Your task to perform on an android device: delete a single message in the gmail app Image 0: 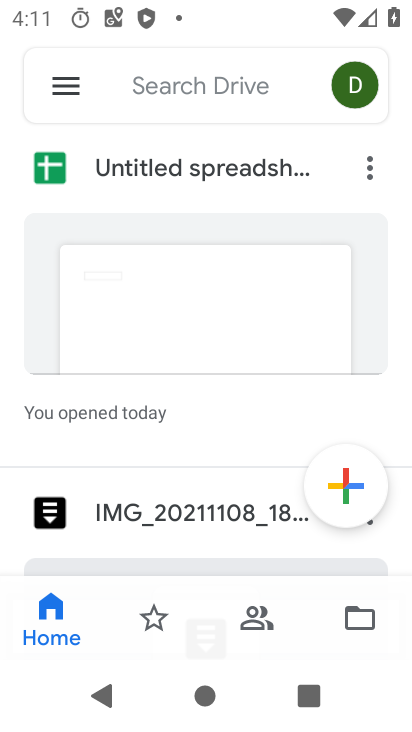
Step 0: press home button
Your task to perform on an android device: delete a single message in the gmail app Image 1: 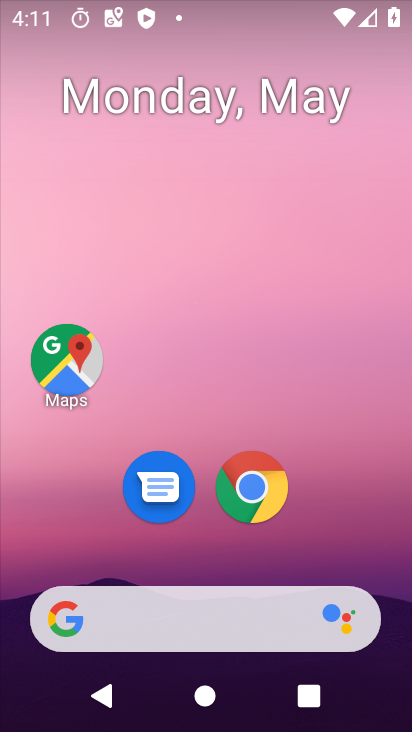
Step 1: drag from (171, 538) to (188, 230)
Your task to perform on an android device: delete a single message in the gmail app Image 2: 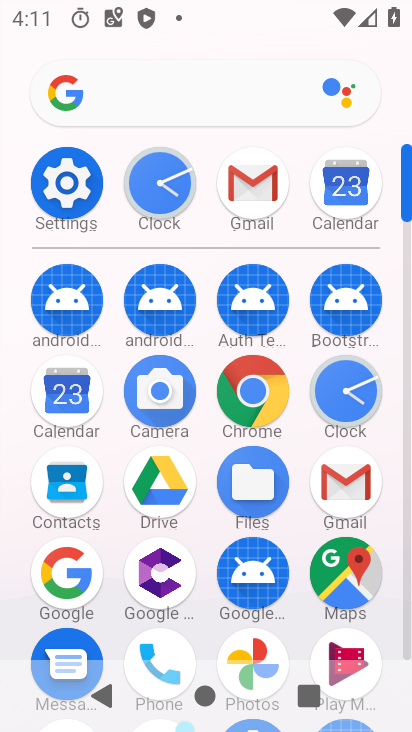
Step 2: click (264, 198)
Your task to perform on an android device: delete a single message in the gmail app Image 3: 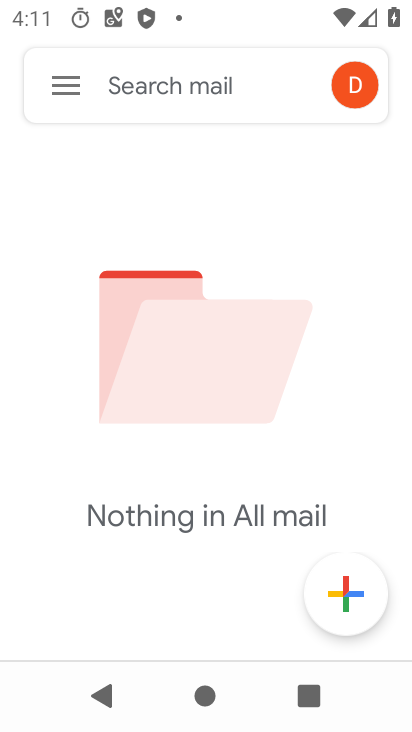
Step 3: drag from (210, 541) to (210, 275)
Your task to perform on an android device: delete a single message in the gmail app Image 4: 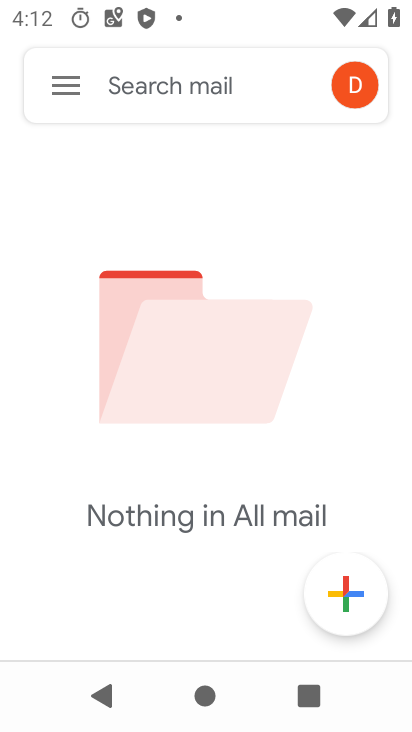
Step 4: click (54, 84)
Your task to perform on an android device: delete a single message in the gmail app Image 5: 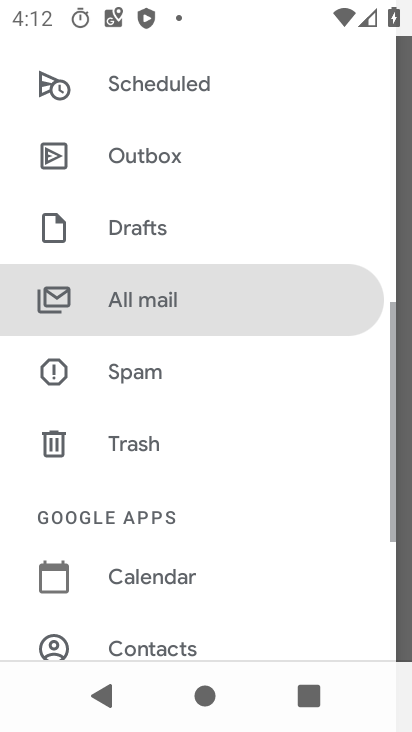
Step 5: drag from (210, 104) to (216, 531)
Your task to perform on an android device: delete a single message in the gmail app Image 6: 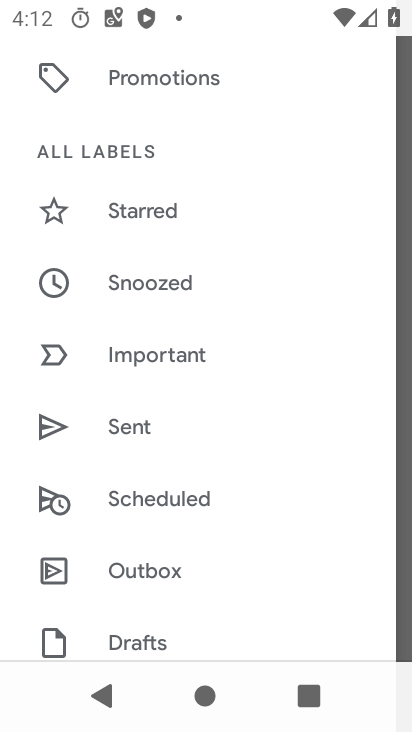
Step 6: drag from (208, 110) to (203, 537)
Your task to perform on an android device: delete a single message in the gmail app Image 7: 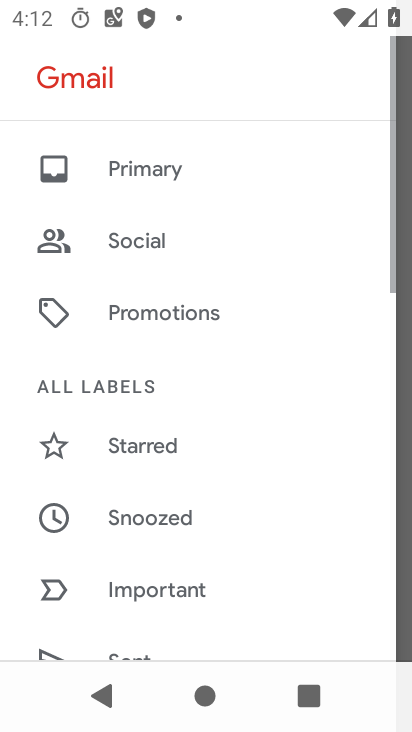
Step 7: click (158, 172)
Your task to perform on an android device: delete a single message in the gmail app Image 8: 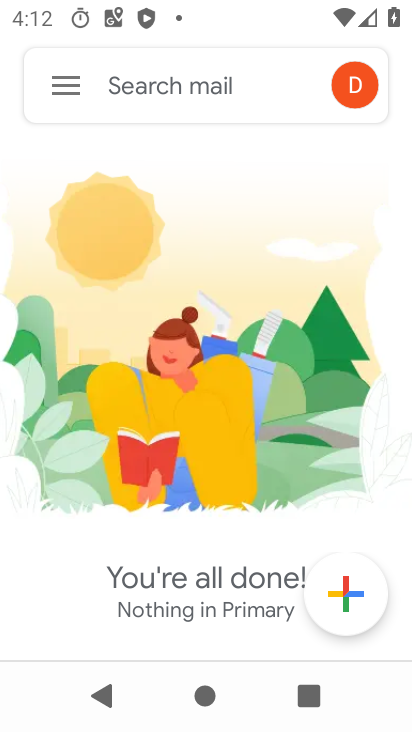
Step 8: task complete